Your task to perform on an android device: toggle notification dots Image 0: 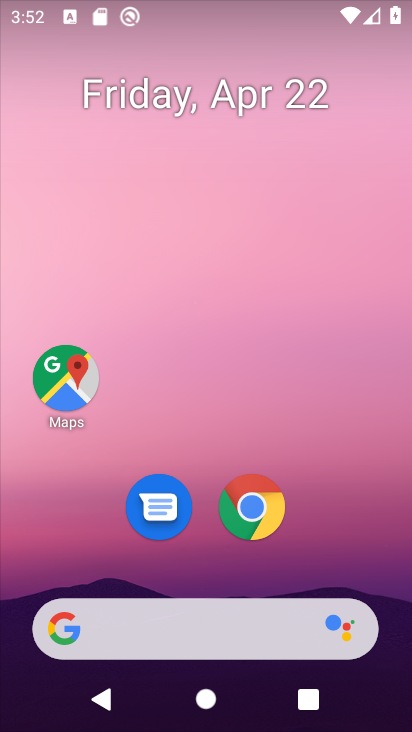
Step 0: drag from (391, 622) to (322, 99)
Your task to perform on an android device: toggle notification dots Image 1: 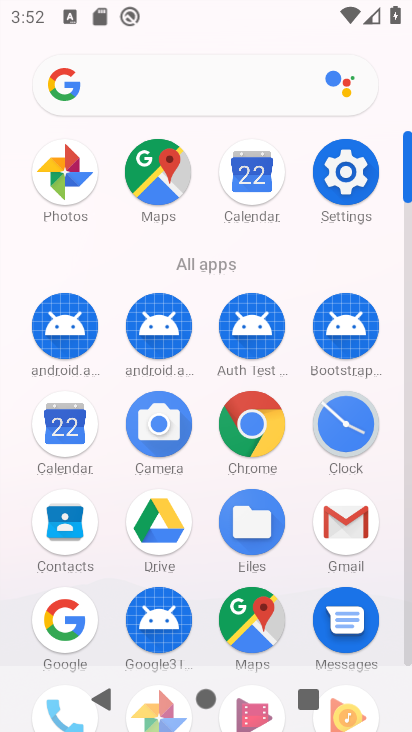
Step 1: click (404, 642)
Your task to perform on an android device: toggle notification dots Image 2: 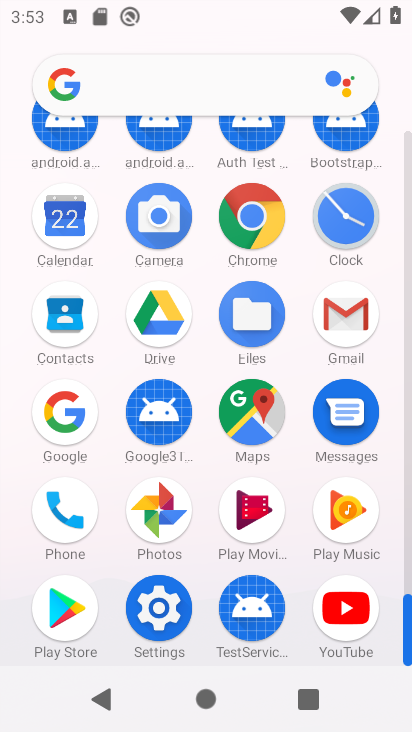
Step 2: click (157, 606)
Your task to perform on an android device: toggle notification dots Image 3: 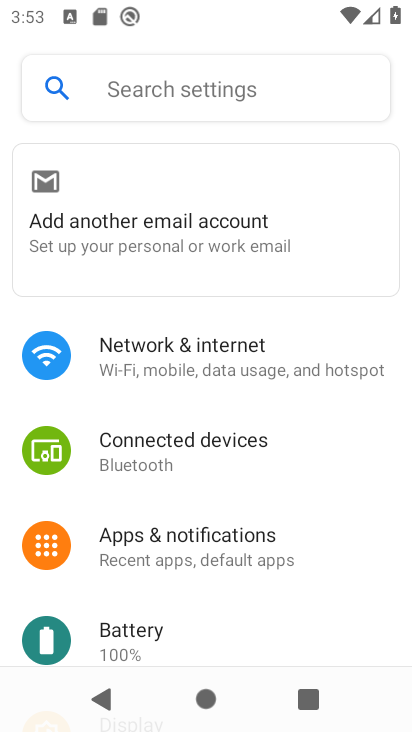
Step 3: click (162, 541)
Your task to perform on an android device: toggle notification dots Image 4: 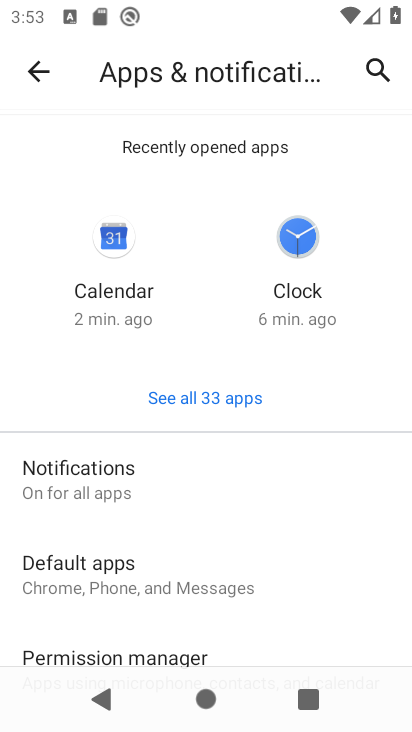
Step 4: click (74, 488)
Your task to perform on an android device: toggle notification dots Image 5: 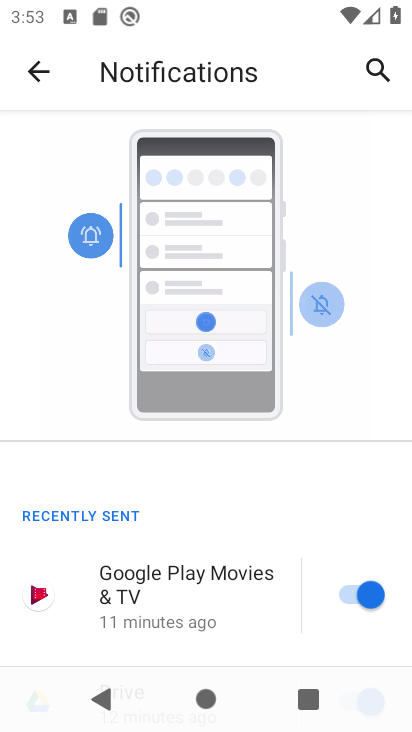
Step 5: drag from (300, 617) to (283, 172)
Your task to perform on an android device: toggle notification dots Image 6: 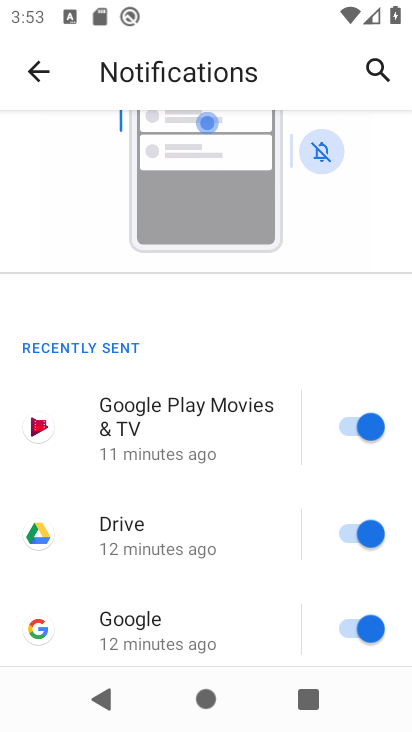
Step 6: drag from (297, 624) to (252, 120)
Your task to perform on an android device: toggle notification dots Image 7: 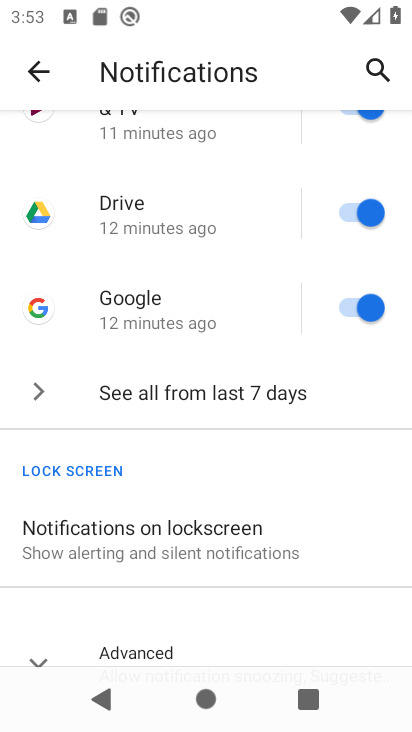
Step 7: drag from (280, 546) to (296, 201)
Your task to perform on an android device: toggle notification dots Image 8: 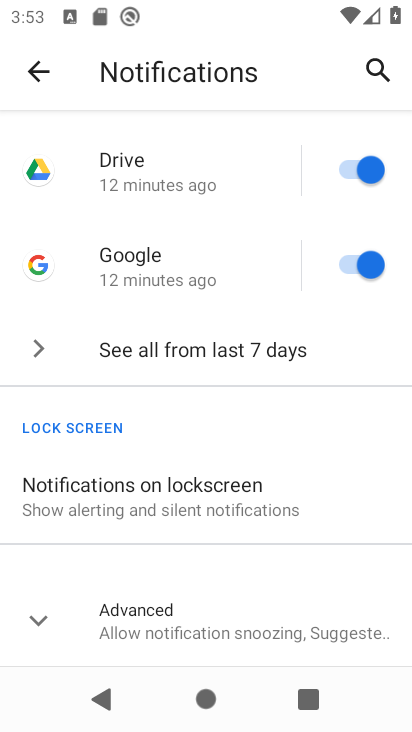
Step 8: click (42, 620)
Your task to perform on an android device: toggle notification dots Image 9: 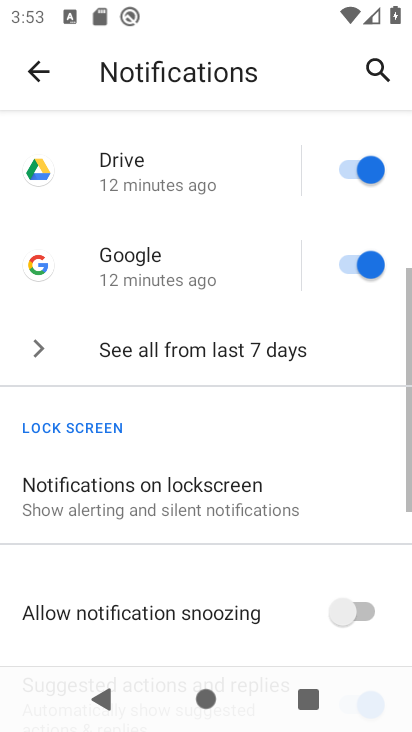
Step 9: drag from (259, 590) to (273, 153)
Your task to perform on an android device: toggle notification dots Image 10: 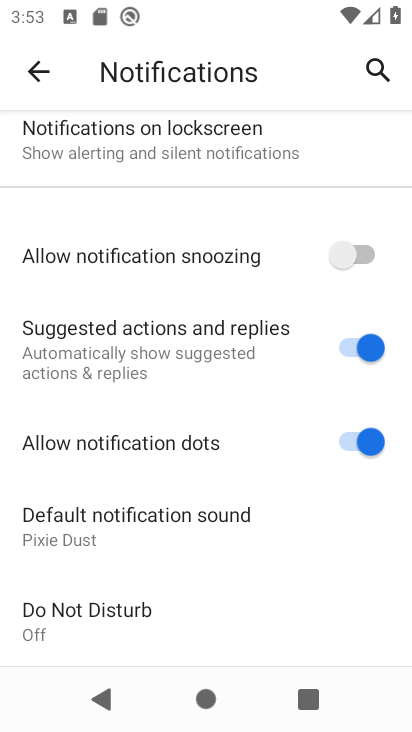
Step 10: click (344, 438)
Your task to perform on an android device: toggle notification dots Image 11: 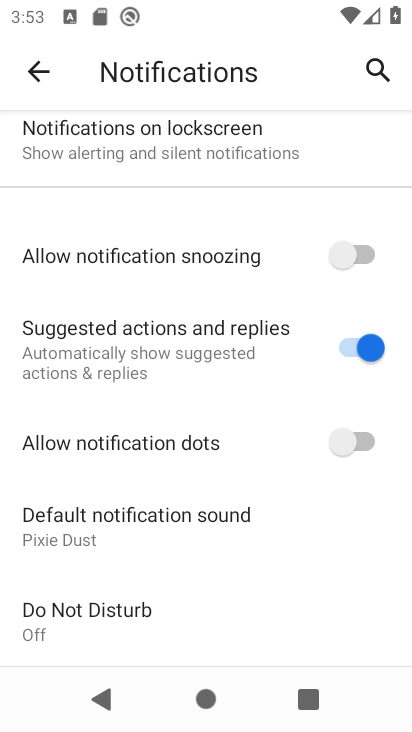
Step 11: task complete